Your task to perform on an android device: turn off airplane mode Image 0: 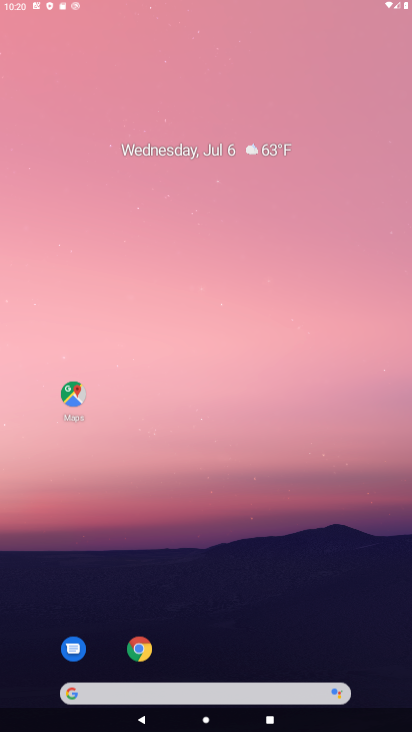
Step 0: press home button
Your task to perform on an android device: turn off airplane mode Image 1: 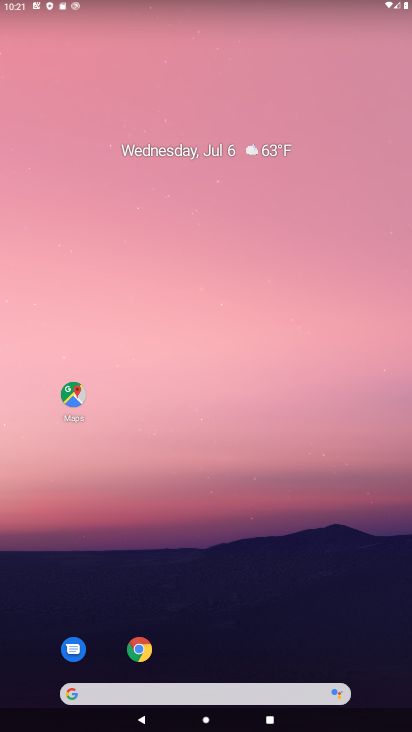
Step 1: task complete